Your task to perform on an android device: turn smart compose on in the gmail app Image 0: 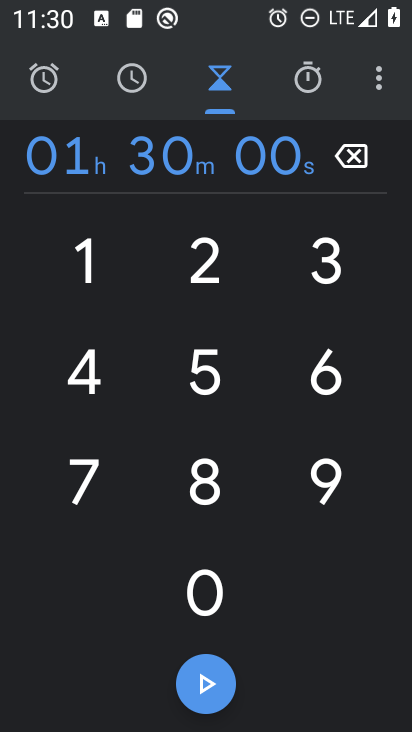
Step 0: press home button
Your task to perform on an android device: turn smart compose on in the gmail app Image 1: 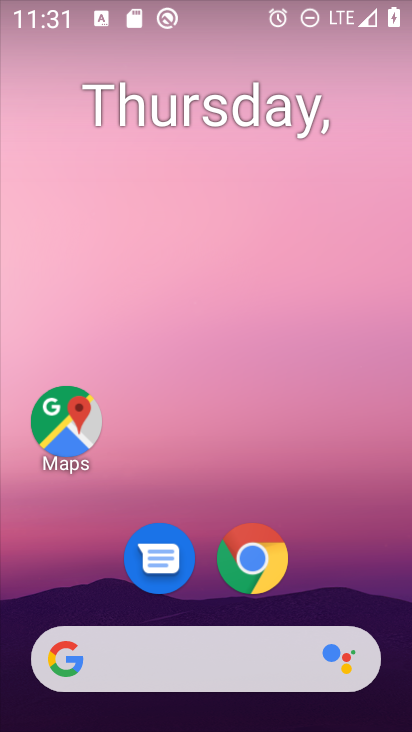
Step 1: drag from (388, 606) to (338, 143)
Your task to perform on an android device: turn smart compose on in the gmail app Image 2: 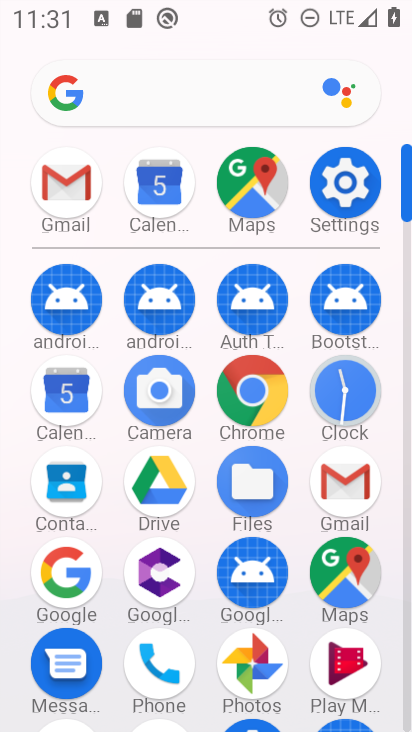
Step 2: click (346, 480)
Your task to perform on an android device: turn smart compose on in the gmail app Image 3: 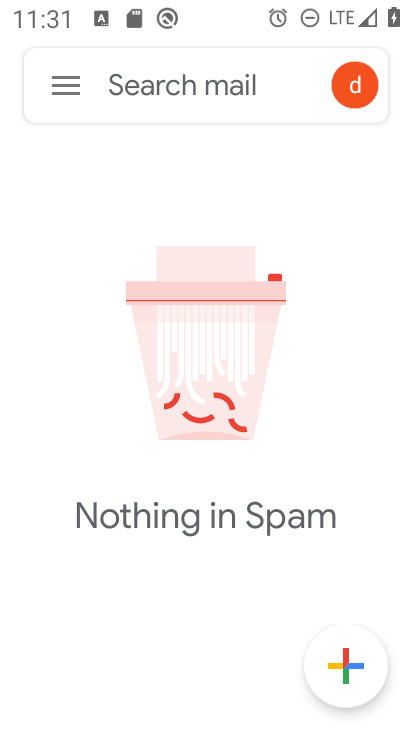
Step 3: click (66, 85)
Your task to perform on an android device: turn smart compose on in the gmail app Image 4: 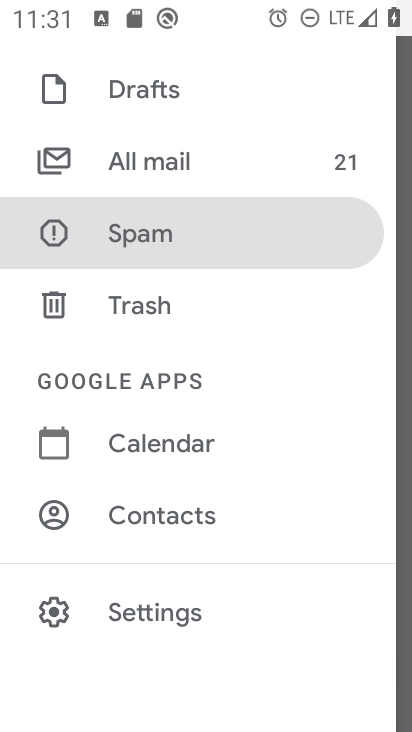
Step 4: click (177, 606)
Your task to perform on an android device: turn smart compose on in the gmail app Image 5: 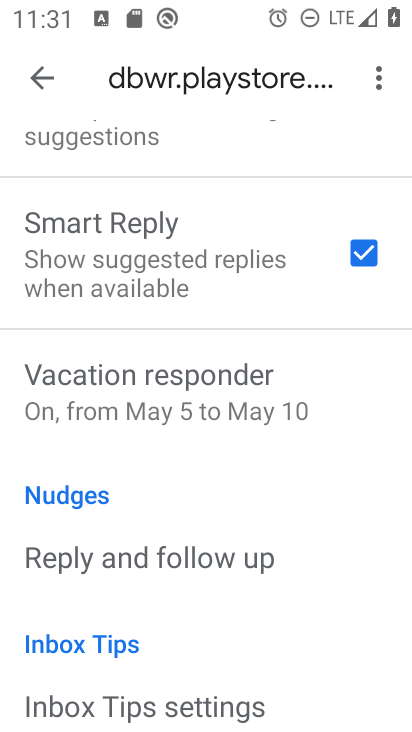
Step 5: task complete